Your task to perform on an android device: What is the news today? Image 0: 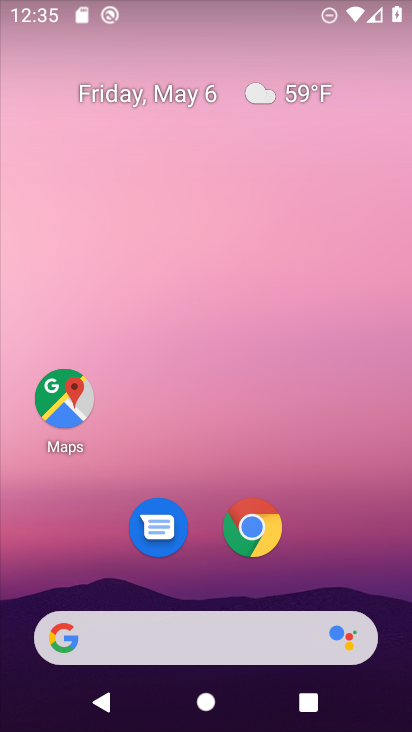
Step 0: drag from (218, 464) to (194, 31)
Your task to perform on an android device: What is the news today? Image 1: 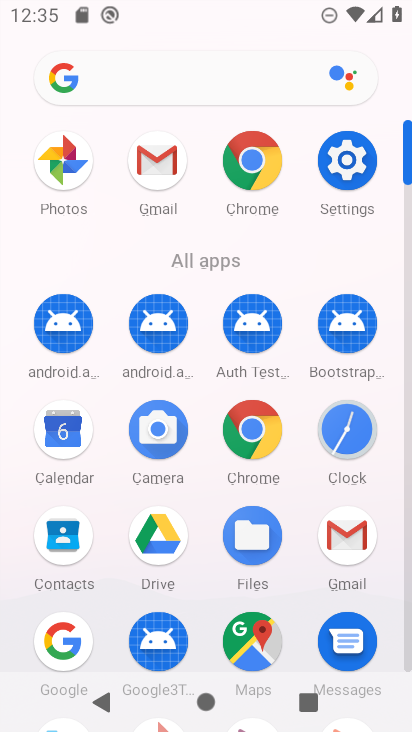
Step 1: drag from (205, 498) to (234, 235)
Your task to perform on an android device: What is the news today? Image 2: 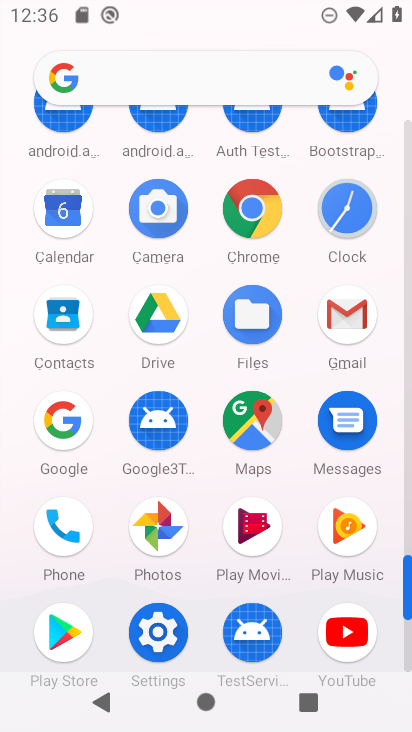
Step 2: click (62, 417)
Your task to perform on an android device: What is the news today? Image 3: 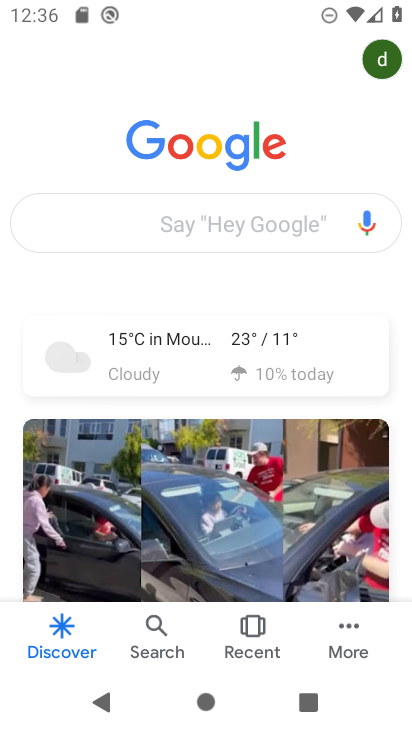
Step 3: drag from (302, 285) to (279, 148)
Your task to perform on an android device: What is the news today? Image 4: 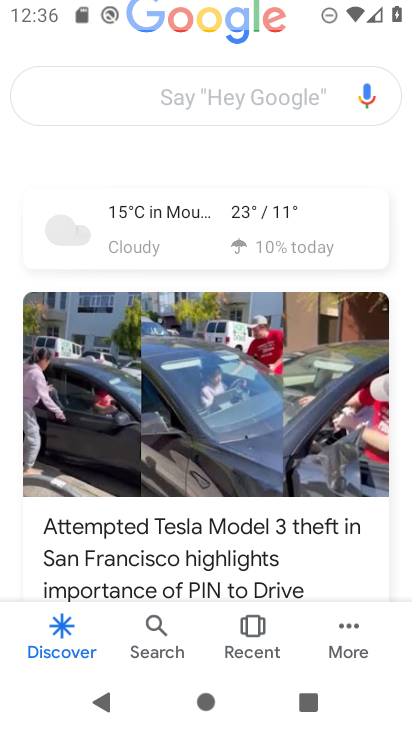
Step 4: click (164, 88)
Your task to perform on an android device: What is the news today? Image 5: 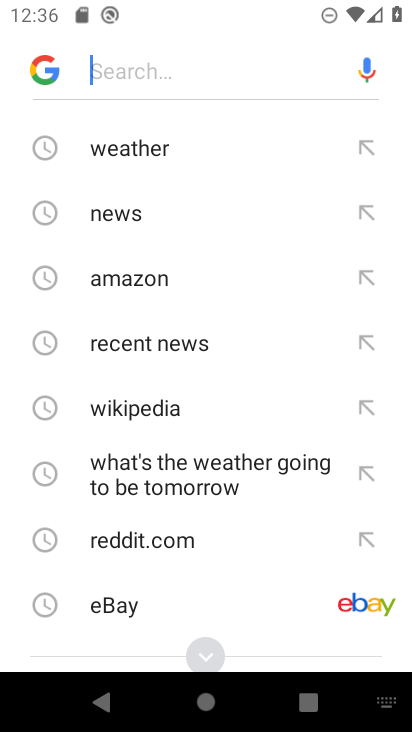
Step 5: type "news today"
Your task to perform on an android device: What is the news today? Image 6: 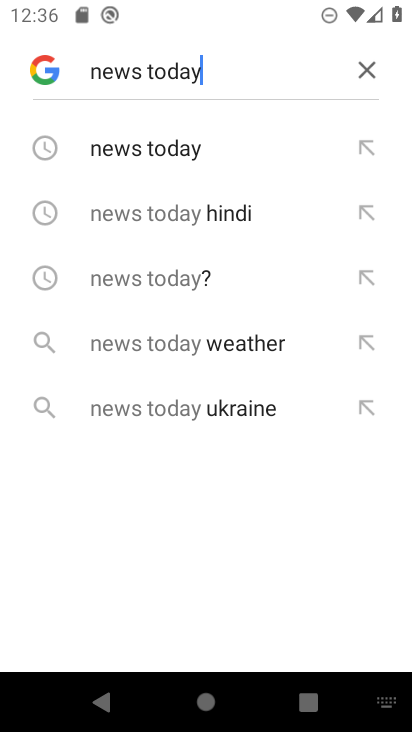
Step 6: click (149, 155)
Your task to perform on an android device: What is the news today? Image 7: 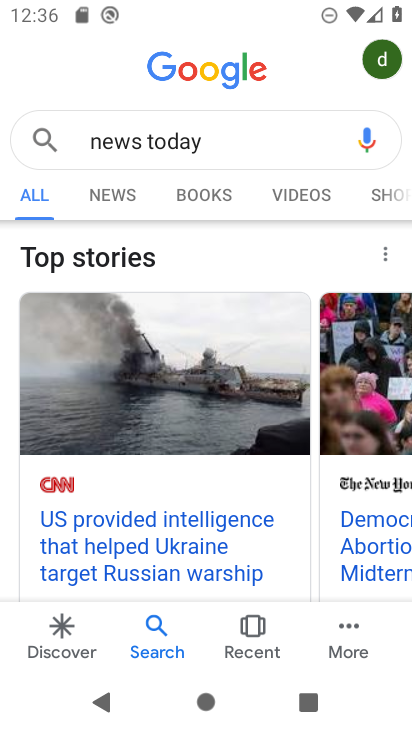
Step 7: task complete